Your task to perform on an android device: change notification settings in the gmail app Image 0: 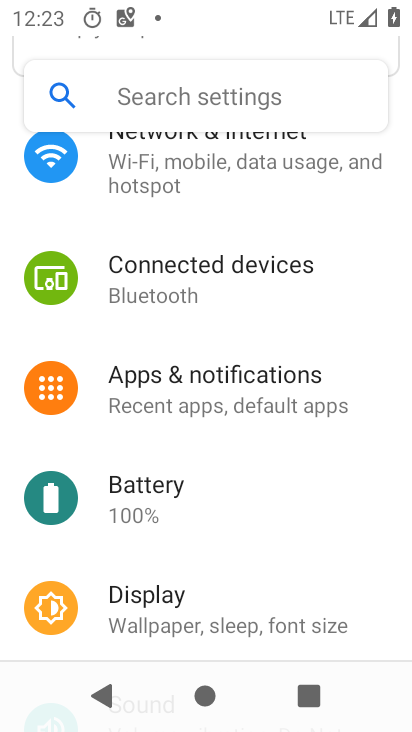
Step 0: press home button
Your task to perform on an android device: change notification settings in the gmail app Image 1: 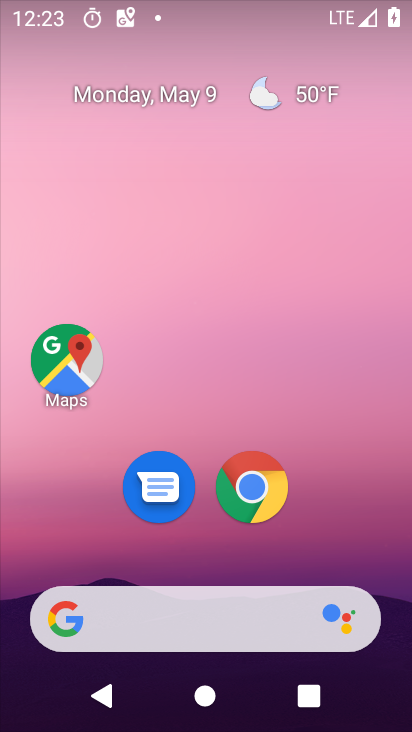
Step 1: drag from (329, 568) to (337, 67)
Your task to perform on an android device: change notification settings in the gmail app Image 2: 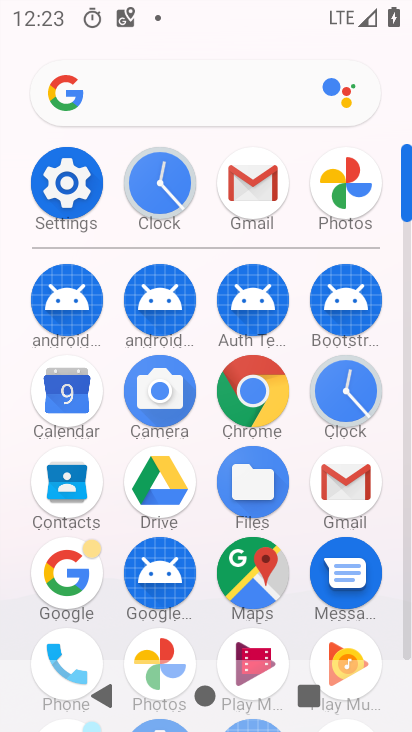
Step 2: click (259, 192)
Your task to perform on an android device: change notification settings in the gmail app Image 3: 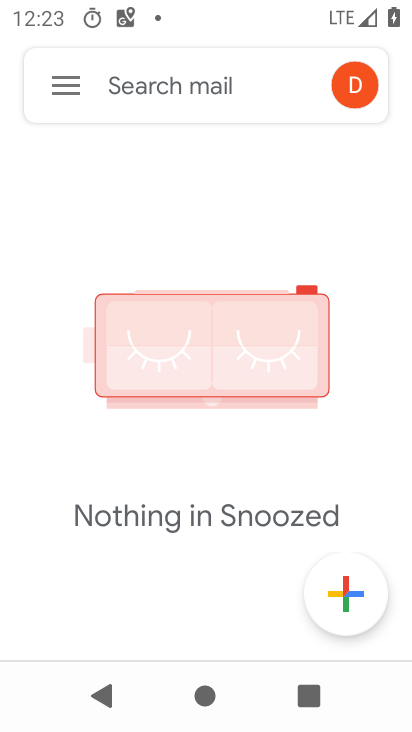
Step 3: click (80, 87)
Your task to perform on an android device: change notification settings in the gmail app Image 4: 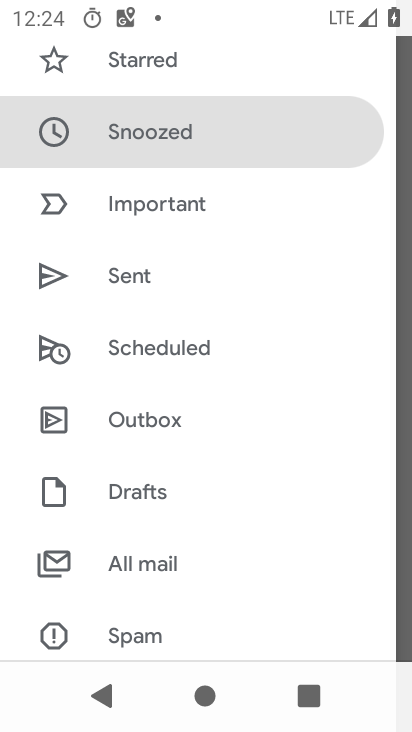
Step 4: drag from (207, 620) to (222, 181)
Your task to perform on an android device: change notification settings in the gmail app Image 5: 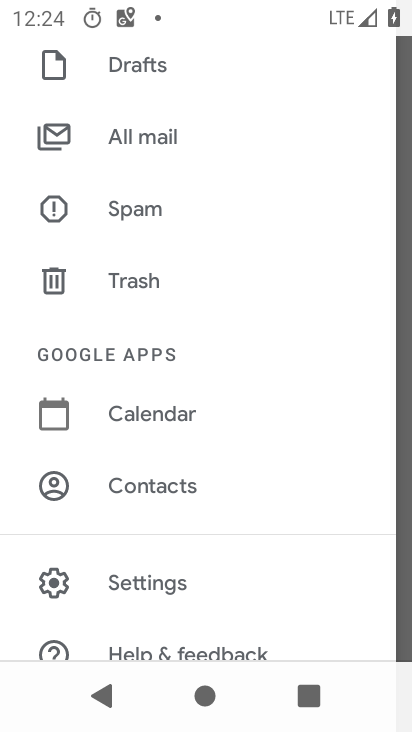
Step 5: click (145, 587)
Your task to perform on an android device: change notification settings in the gmail app Image 6: 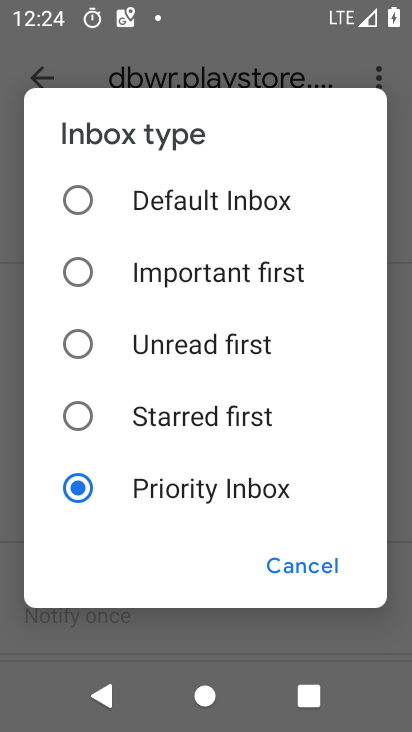
Step 6: press back button
Your task to perform on an android device: change notification settings in the gmail app Image 7: 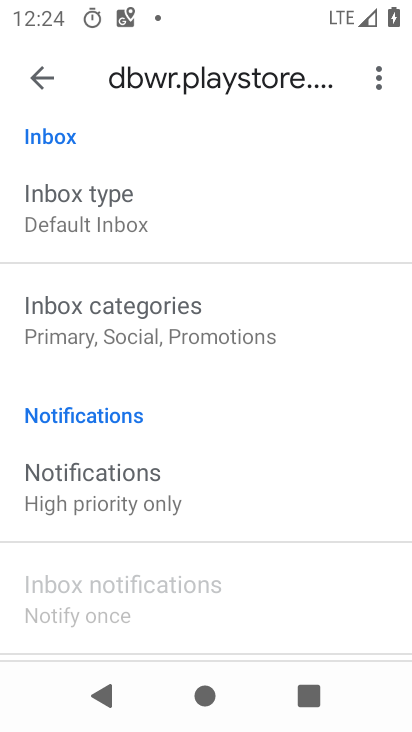
Step 7: click (148, 487)
Your task to perform on an android device: change notification settings in the gmail app Image 8: 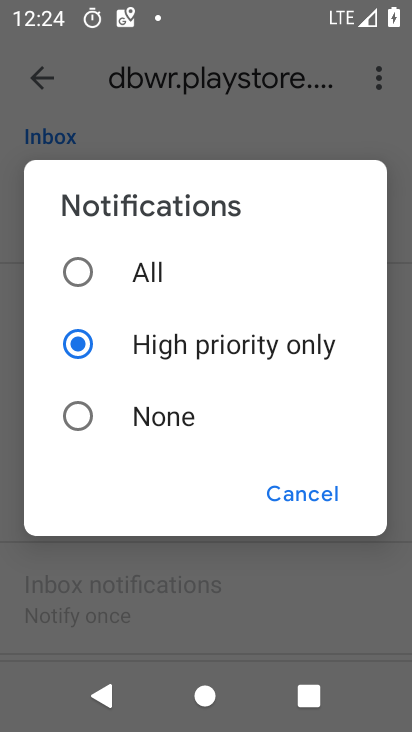
Step 8: click (162, 277)
Your task to perform on an android device: change notification settings in the gmail app Image 9: 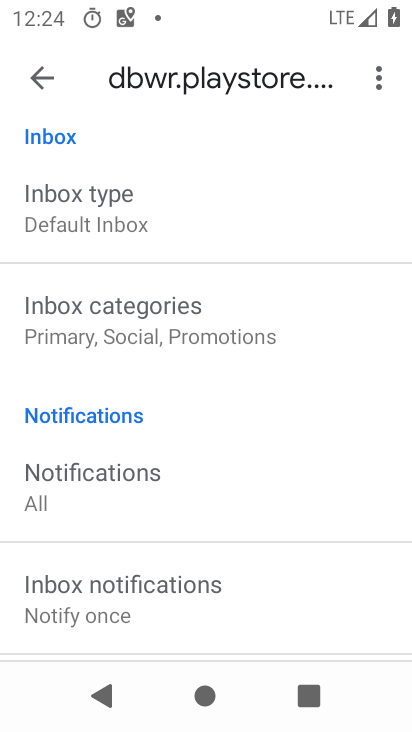
Step 9: task complete